Your task to perform on an android device: create a new album in the google photos Image 0: 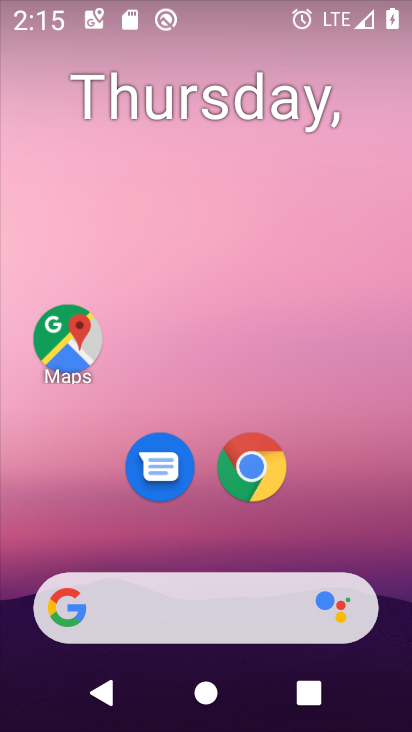
Step 0: drag from (220, 547) to (145, 1)
Your task to perform on an android device: create a new album in the google photos Image 1: 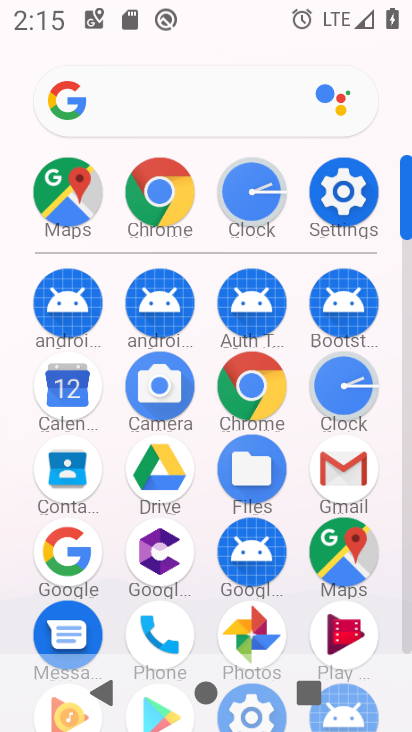
Step 1: click (243, 633)
Your task to perform on an android device: create a new album in the google photos Image 2: 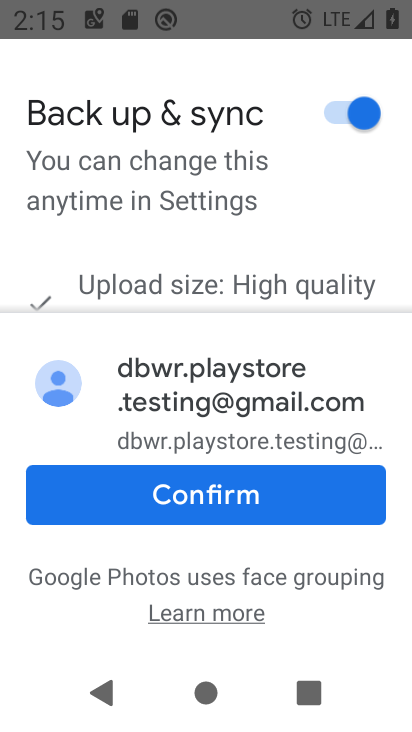
Step 2: click (255, 503)
Your task to perform on an android device: create a new album in the google photos Image 3: 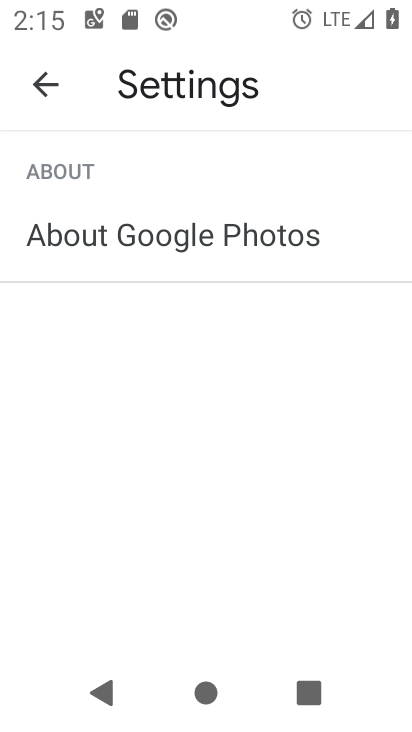
Step 3: click (53, 86)
Your task to perform on an android device: create a new album in the google photos Image 4: 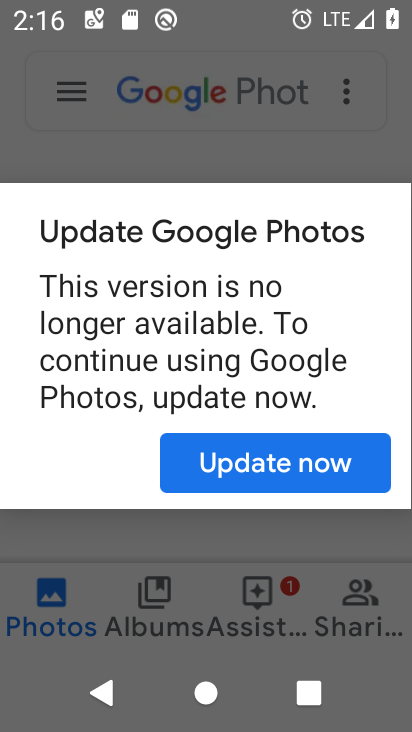
Step 4: click (243, 466)
Your task to perform on an android device: create a new album in the google photos Image 5: 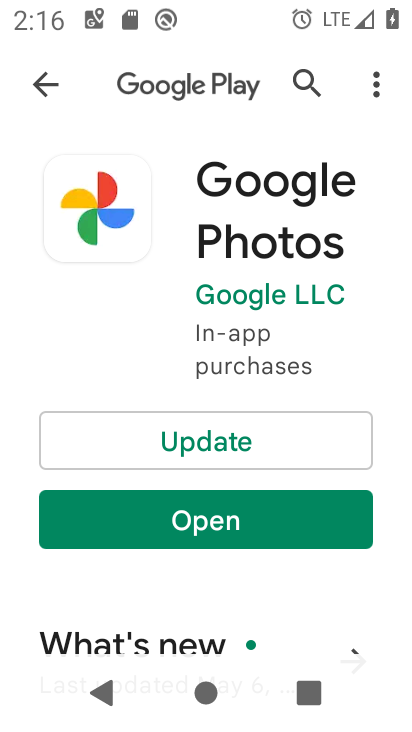
Step 5: click (275, 519)
Your task to perform on an android device: create a new album in the google photos Image 6: 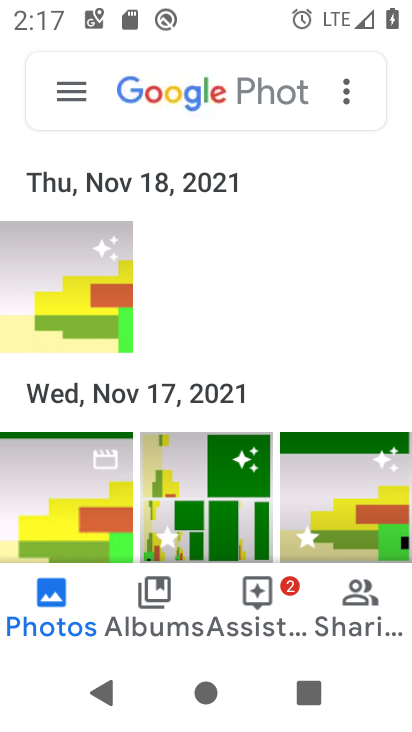
Step 6: click (105, 312)
Your task to perform on an android device: create a new album in the google photos Image 7: 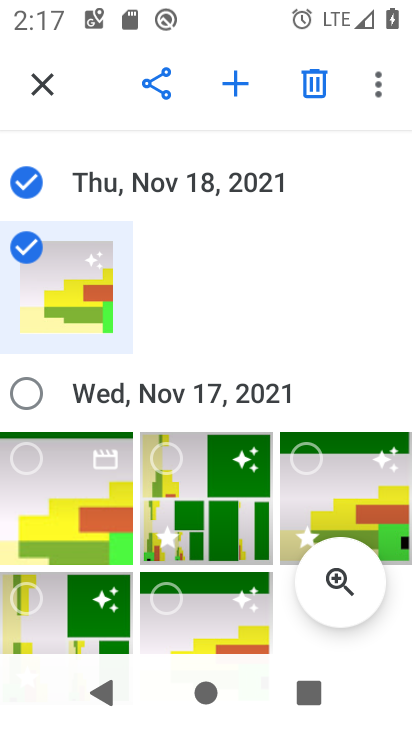
Step 7: click (81, 487)
Your task to perform on an android device: create a new album in the google photos Image 8: 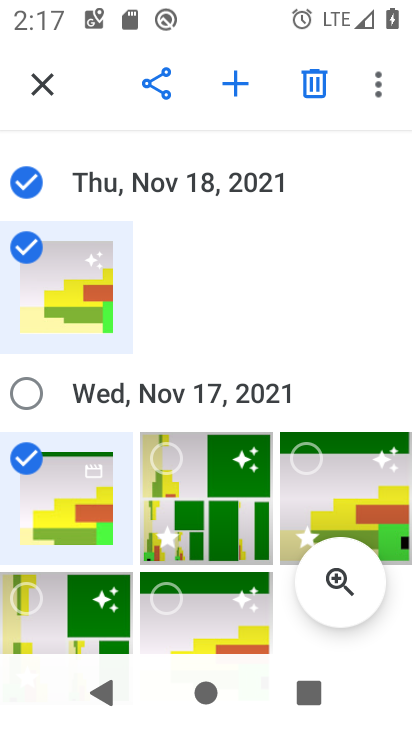
Step 8: click (234, 87)
Your task to perform on an android device: create a new album in the google photos Image 9: 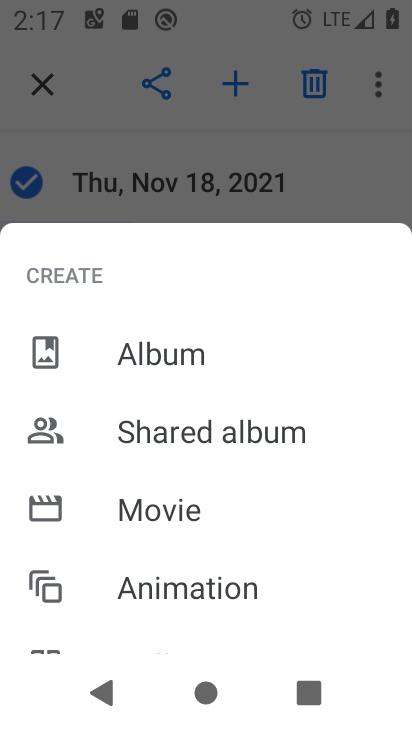
Step 9: click (188, 365)
Your task to perform on an android device: create a new album in the google photos Image 10: 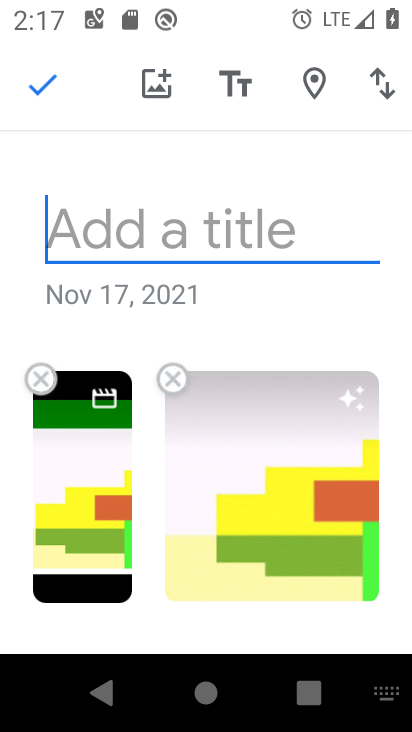
Step 10: type "hu"
Your task to perform on an android device: create a new album in the google photos Image 11: 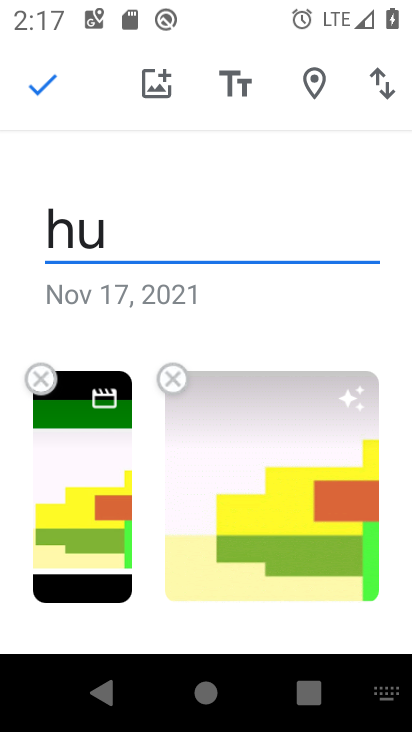
Step 11: click (44, 82)
Your task to perform on an android device: create a new album in the google photos Image 12: 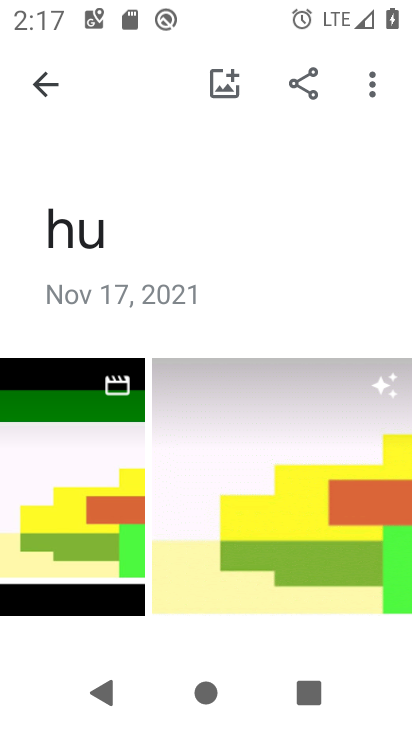
Step 12: task complete